Your task to perform on an android device: open app "Flipkart Online Shopping App" (install if not already installed), go to login, and select forgot password Image 0: 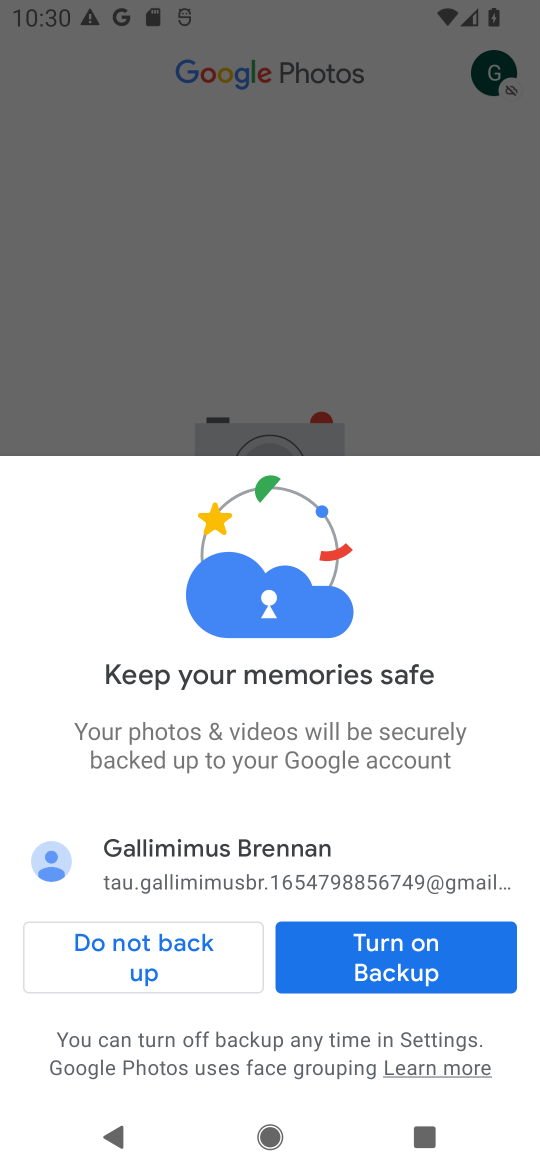
Step 0: press home button
Your task to perform on an android device: open app "Flipkart Online Shopping App" (install if not already installed), go to login, and select forgot password Image 1: 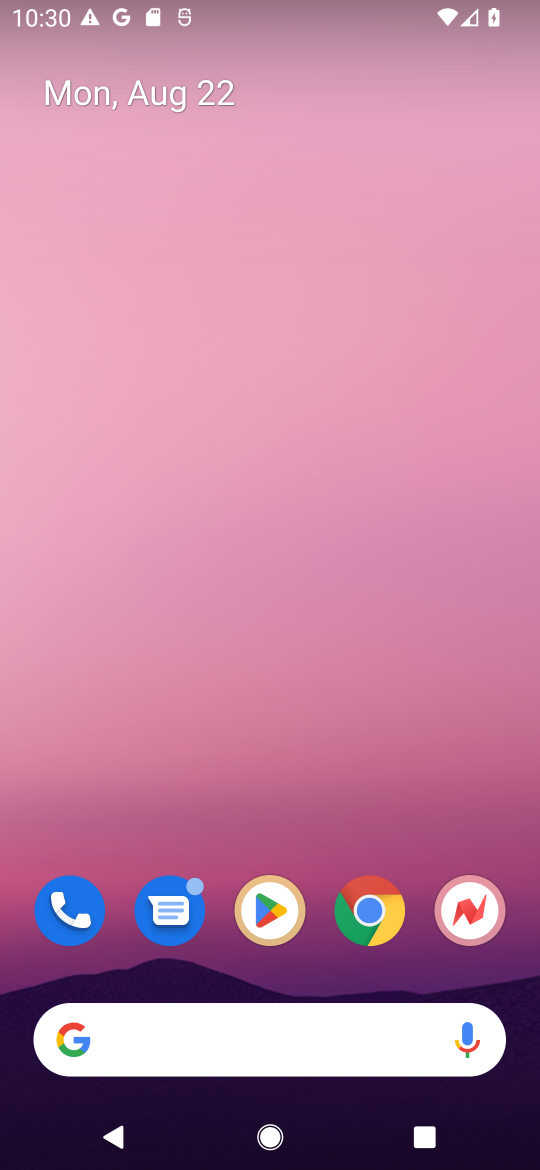
Step 1: click (240, 902)
Your task to perform on an android device: open app "Flipkart Online Shopping App" (install if not already installed), go to login, and select forgot password Image 2: 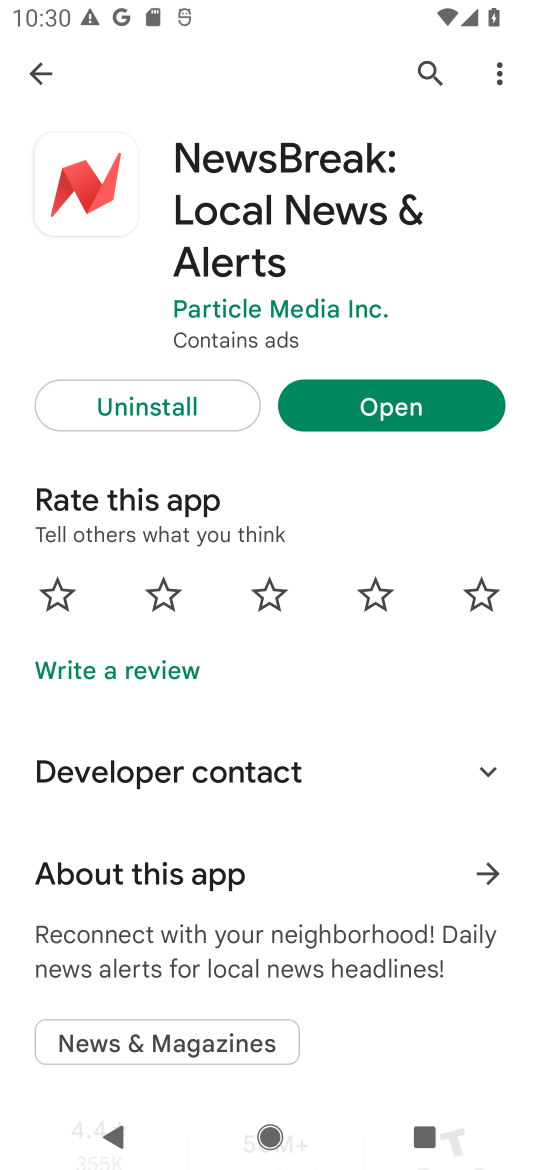
Step 2: click (413, 77)
Your task to perform on an android device: open app "Flipkart Online Shopping App" (install if not already installed), go to login, and select forgot password Image 3: 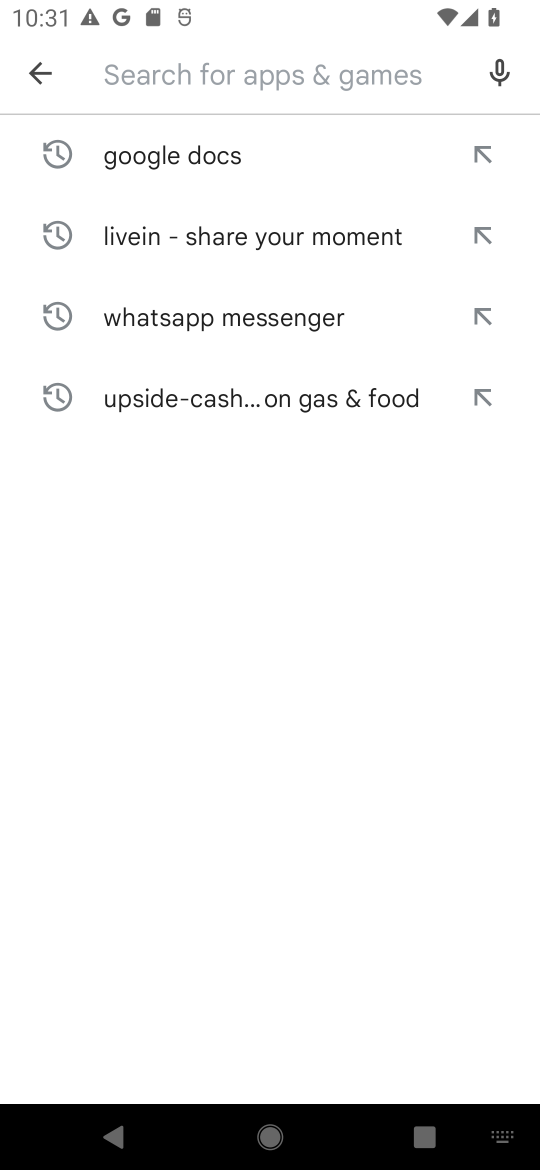
Step 3: type "Flipkart Online Shopping App"
Your task to perform on an android device: open app "Flipkart Online Shopping App" (install if not already installed), go to login, and select forgot password Image 4: 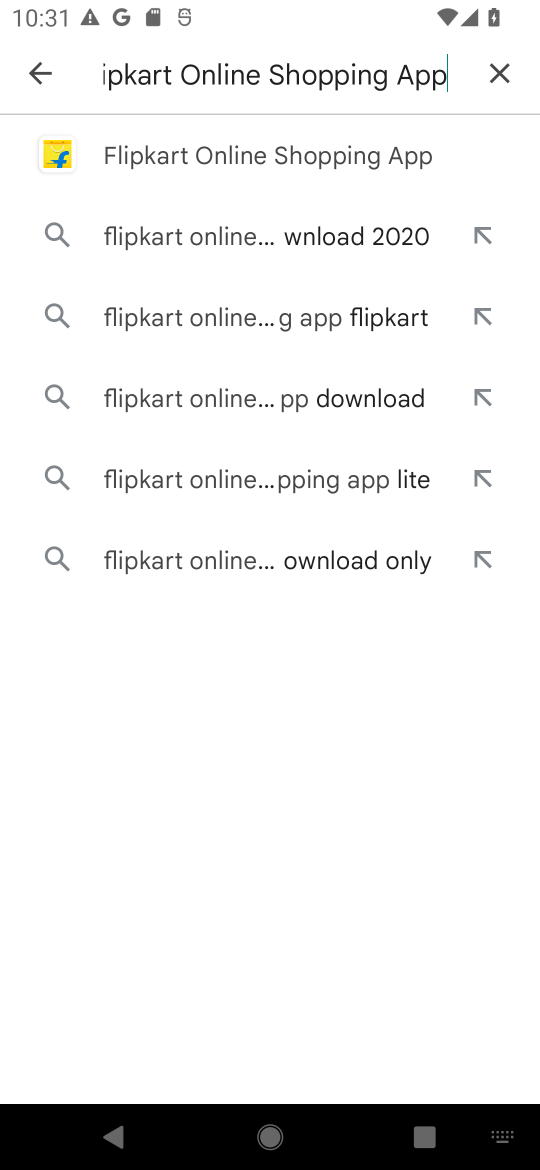
Step 4: click (314, 158)
Your task to perform on an android device: open app "Flipkart Online Shopping App" (install if not already installed), go to login, and select forgot password Image 5: 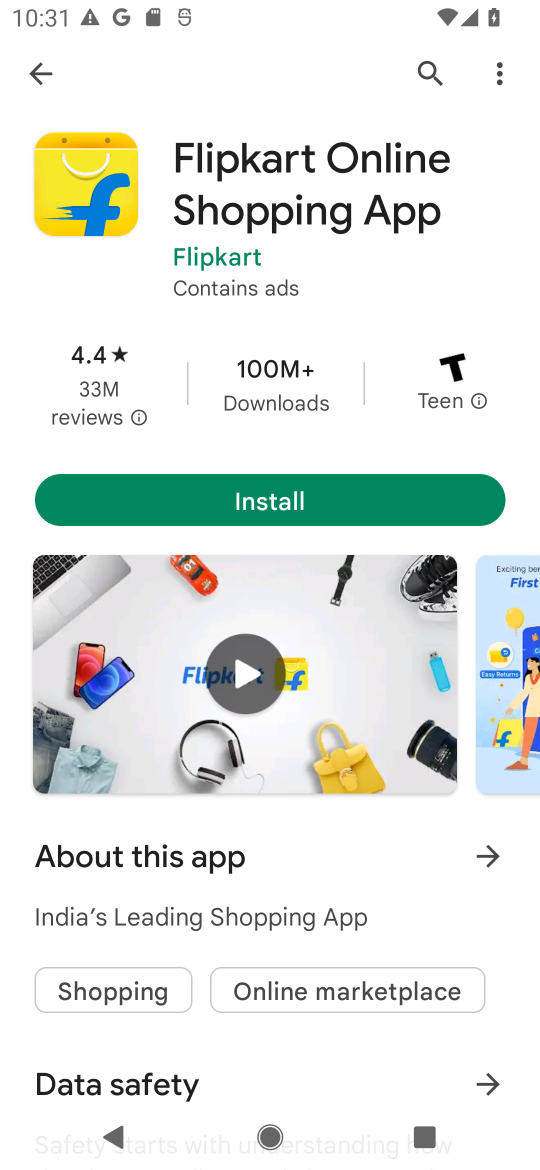
Step 5: click (322, 508)
Your task to perform on an android device: open app "Flipkart Online Shopping App" (install if not already installed), go to login, and select forgot password Image 6: 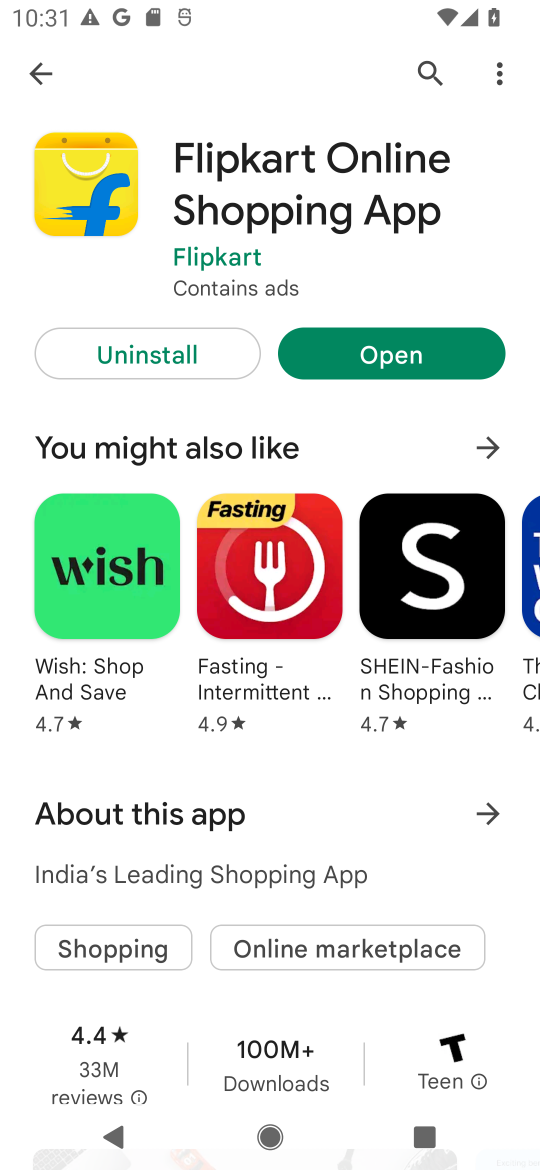
Step 6: click (350, 356)
Your task to perform on an android device: open app "Flipkart Online Shopping App" (install if not already installed), go to login, and select forgot password Image 7: 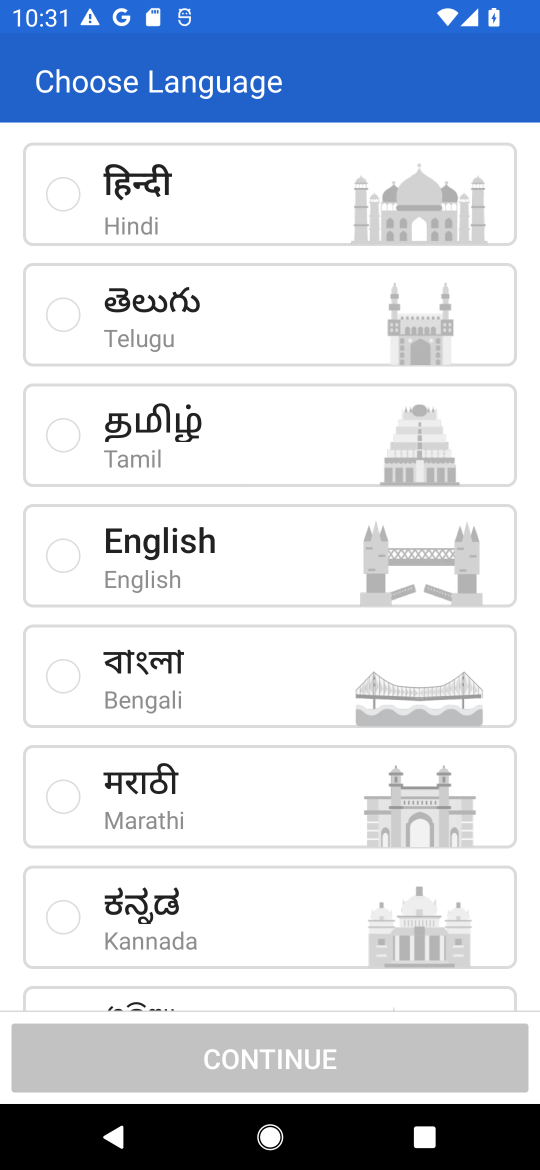
Step 7: task complete